Your task to perform on an android device: Go to privacy settings Image 0: 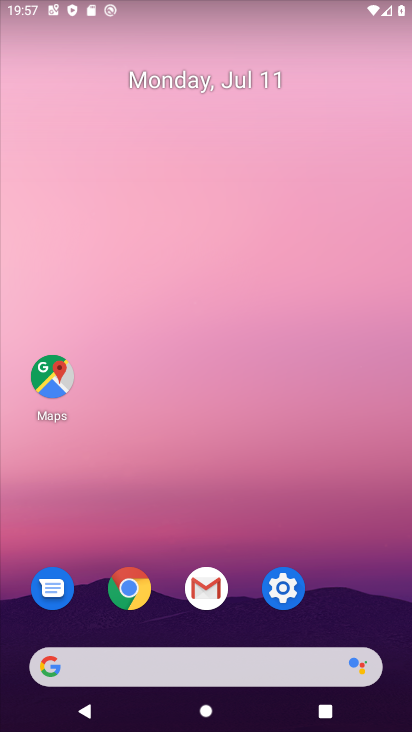
Step 0: drag from (220, 686) to (265, 166)
Your task to perform on an android device: Go to privacy settings Image 1: 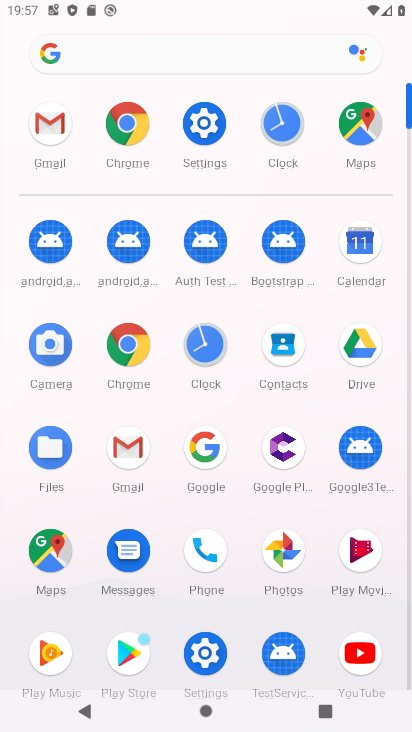
Step 1: click (211, 138)
Your task to perform on an android device: Go to privacy settings Image 2: 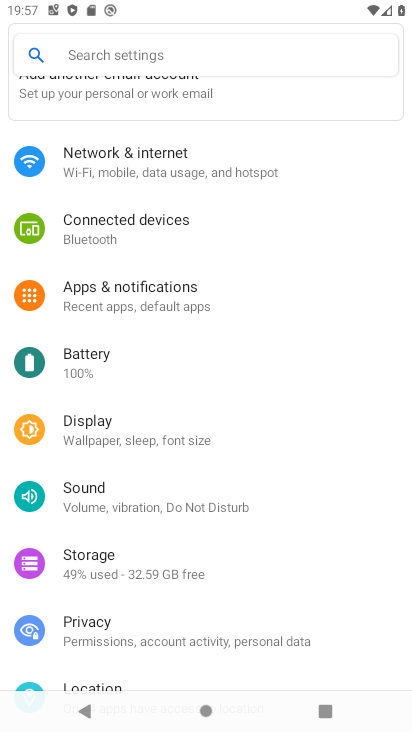
Step 2: click (109, 622)
Your task to perform on an android device: Go to privacy settings Image 3: 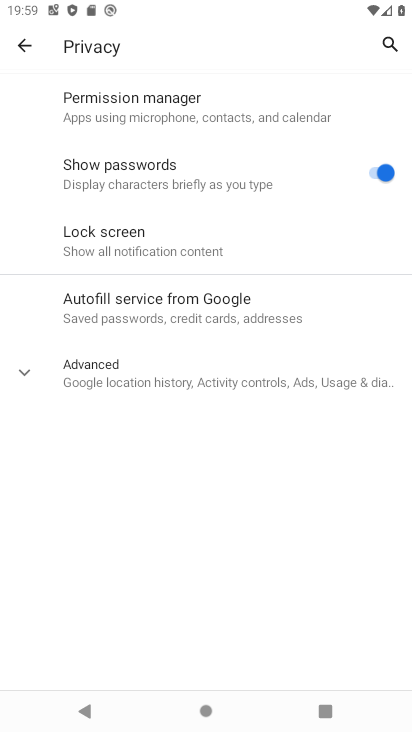
Step 3: task complete